Your task to perform on an android device: Open the calendar app, open the side menu, and click the "Day" option Image 0: 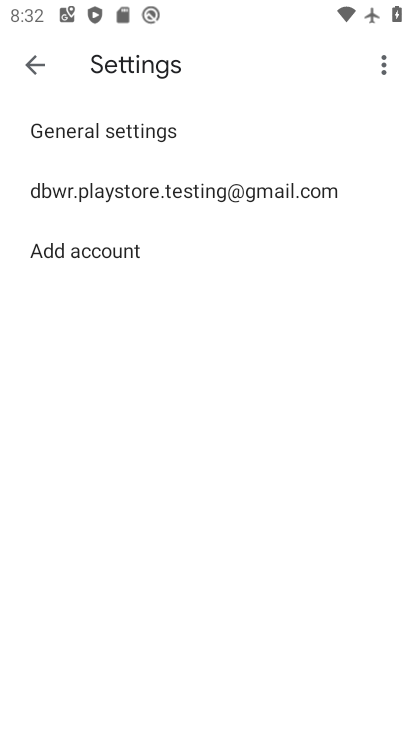
Step 0: press home button
Your task to perform on an android device: Open the calendar app, open the side menu, and click the "Day" option Image 1: 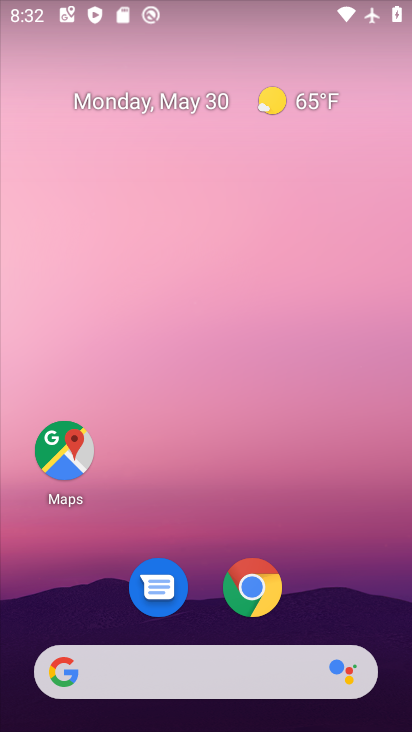
Step 1: drag from (190, 669) to (287, 271)
Your task to perform on an android device: Open the calendar app, open the side menu, and click the "Day" option Image 2: 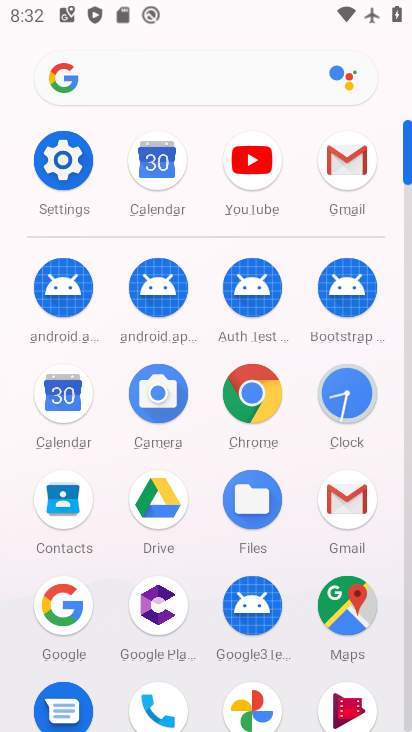
Step 2: click (153, 166)
Your task to perform on an android device: Open the calendar app, open the side menu, and click the "Day" option Image 3: 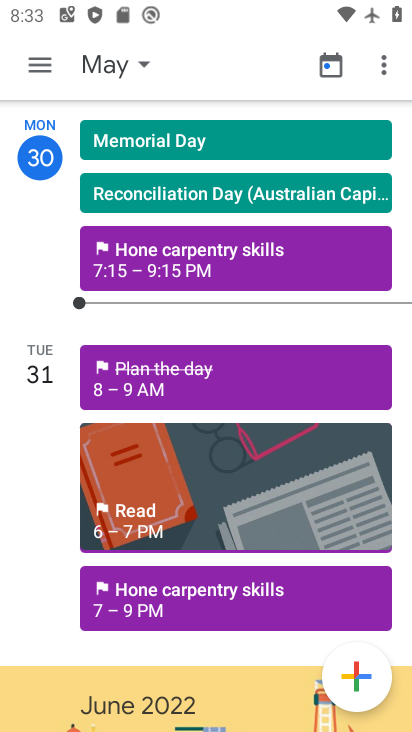
Step 3: click (46, 65)
Your task to perform on an android device: Open the calendar app, open the side menu, and click the "Day" option Image 4: 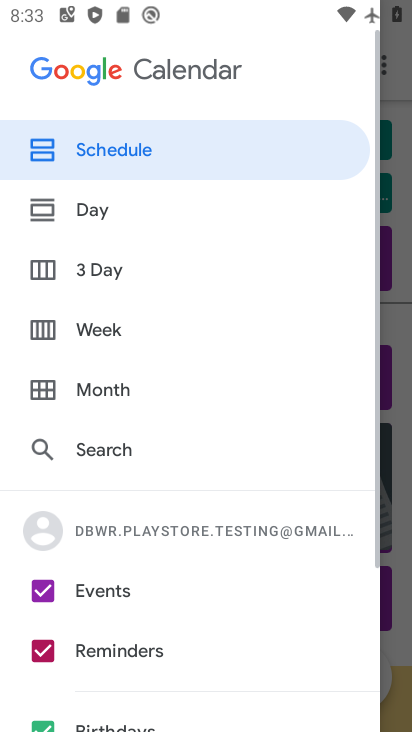
Step 4: click (73, 208)
Your task to perform on an android device: Open the calendar app, open the side menu, and click the "Day" option Image 5: 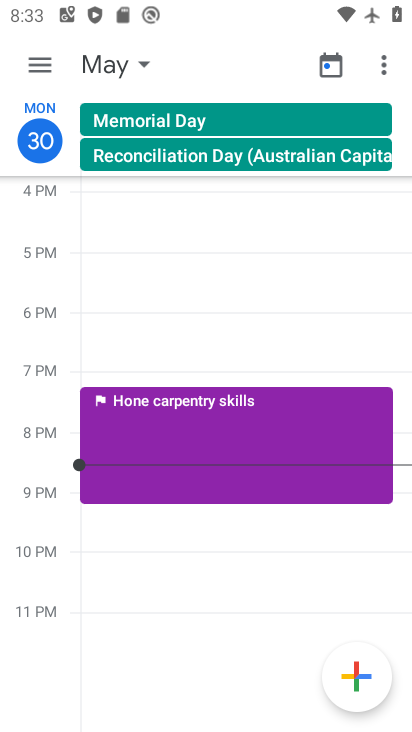
Step 5: task complete